Your task to perform on an android device: turn on wifi Image 0: 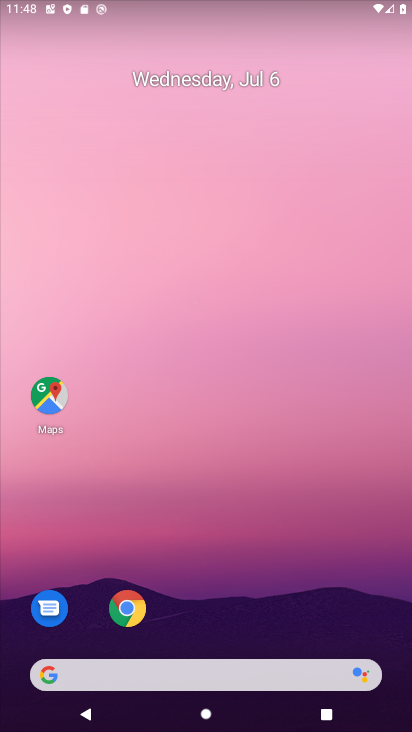
Step 0: drag from (161, 605) to (131, 227)
Your task to perform on an android device: turn on wifi Image 1: 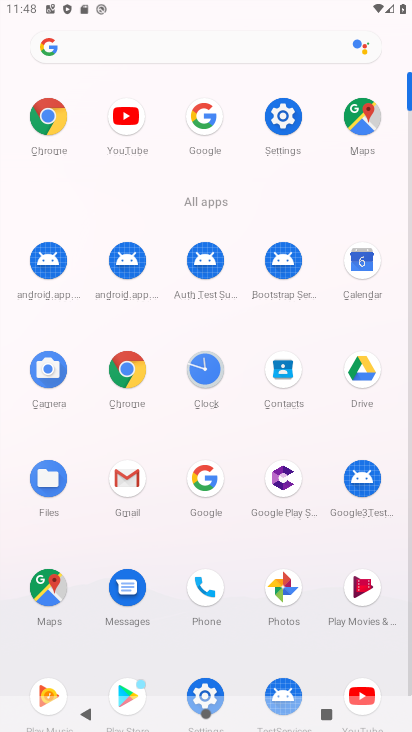
Step 1: click (293, 113)
Your task to perform on an android device: turn on wifi Image 2: 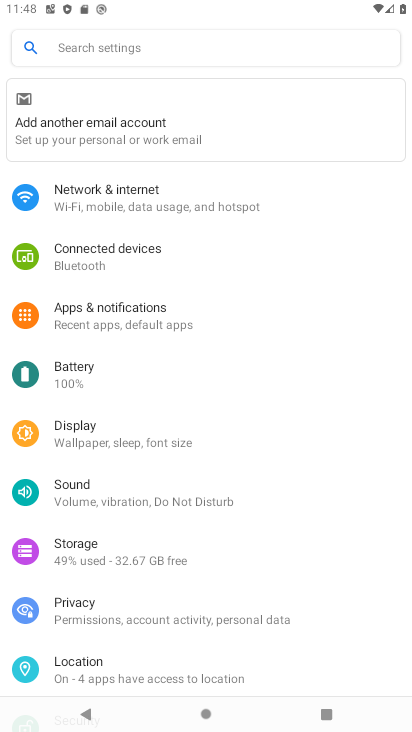
Step 2: click (108, 199)
Your task to perform on an android device: turn on wifi Image 3: 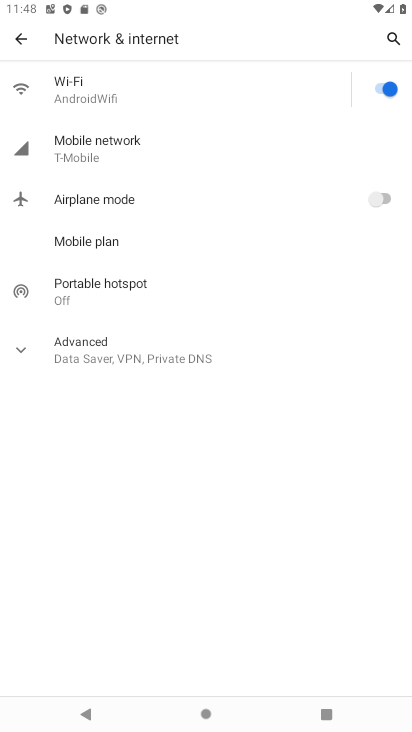
Step 3: task complete